Your task to perform on an android device: turn on the 12-hour format for clock Image 0: 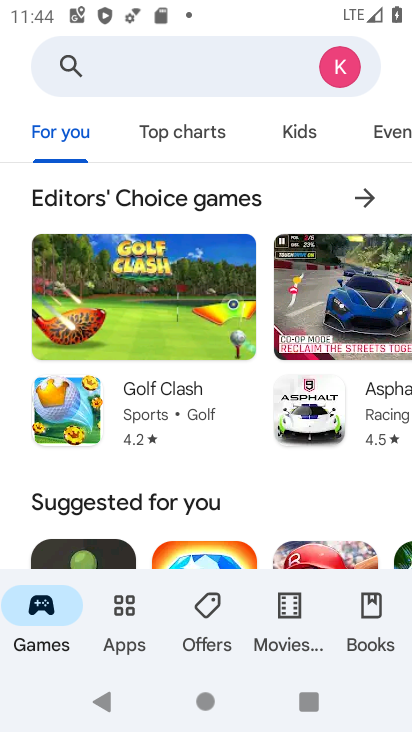
Step 0: press home button
Your task to perform on an android device: turn on the 12-hour format for clock Image 1: 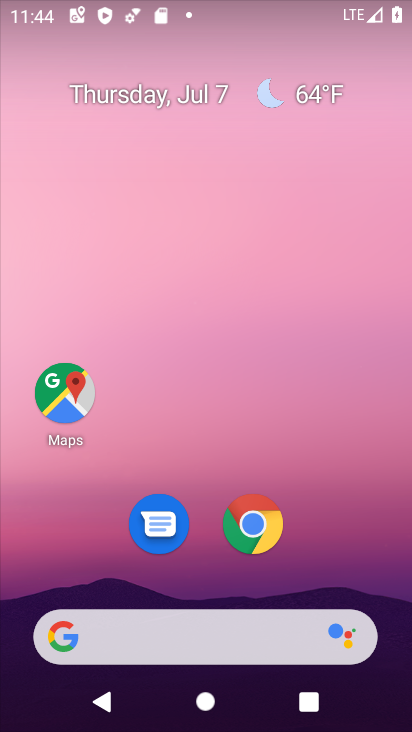
Step 1: drag from (313, 540) to (250, 15)
Your task to perform on an android device: turn on the 12-hour format for clock Image 2: 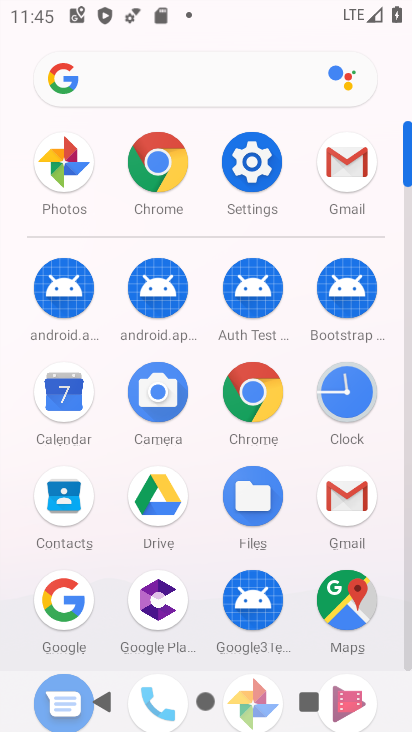
Step 2: click (337, 389)
Your task to perform on an android device: turn on the 12-hour format for clock Image 3: 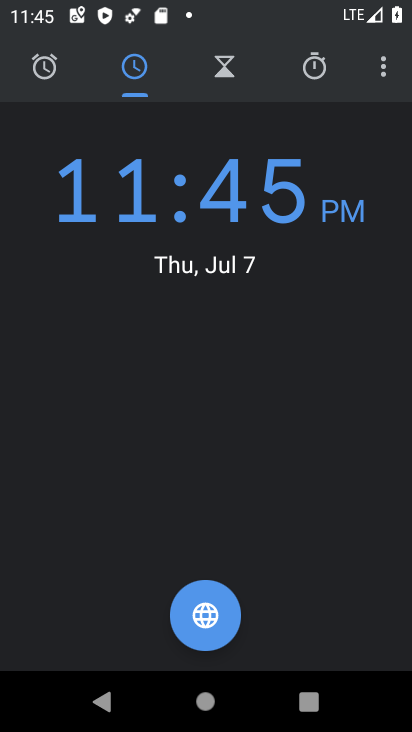
Step 3: click (383, 68)
Your task to perform on an android device: turn on the 12-hour format for clock Image 4: 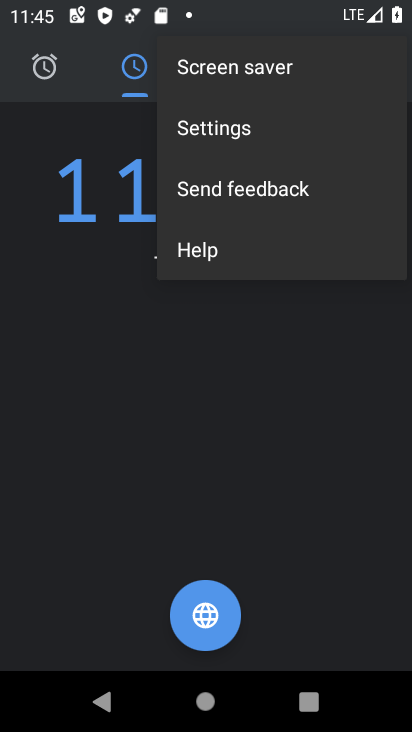
Step 4: click (265, 132)
Your task to perform on an android device: turn on the 12-hour format for clock Image 5: 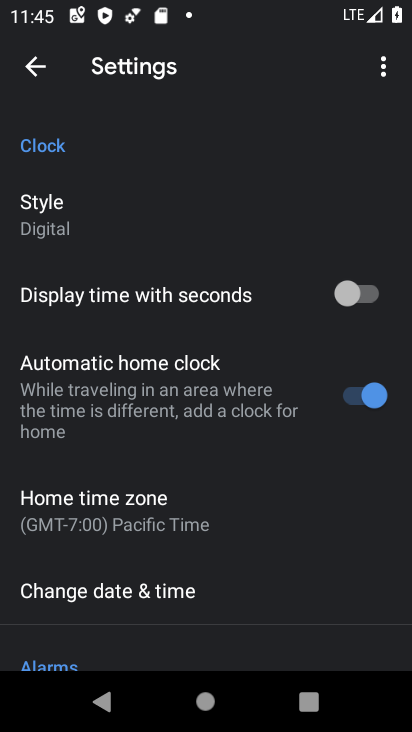
Step 5: drag from (225, 474) to (227, 252)
Your task to perform on an android device: turn on the 12-hour format for clock Image 6: 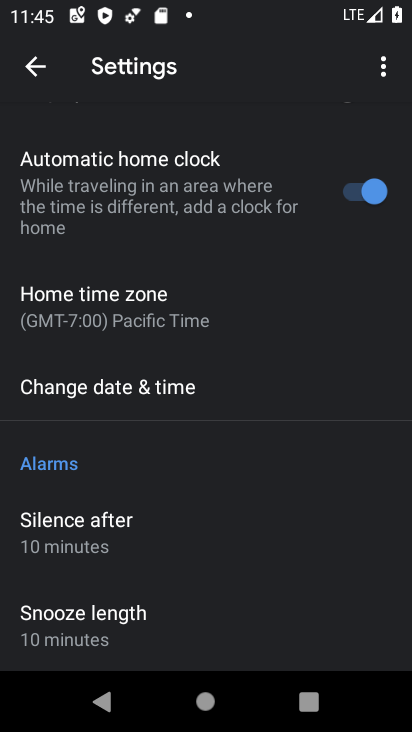
Step 6: click (225, 397)
Your task to perform on an android device: turn on the 12-hour format for clock Image 7: 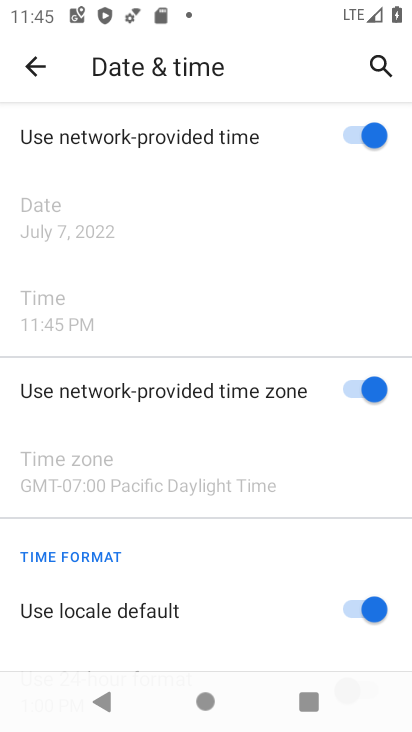
Step 7: task complete